Your task to perform on an android device: Search for pizza restaurants on Maps Image 0: 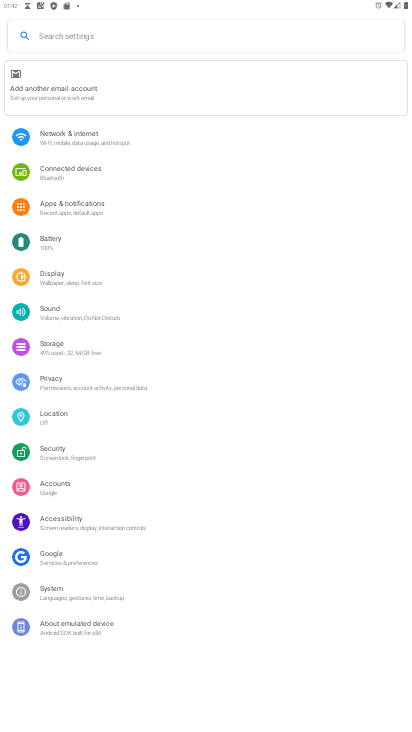
Step 0: press home button
Your task to perform on an android device: Search for pizza restaurants on Maps Image 1: 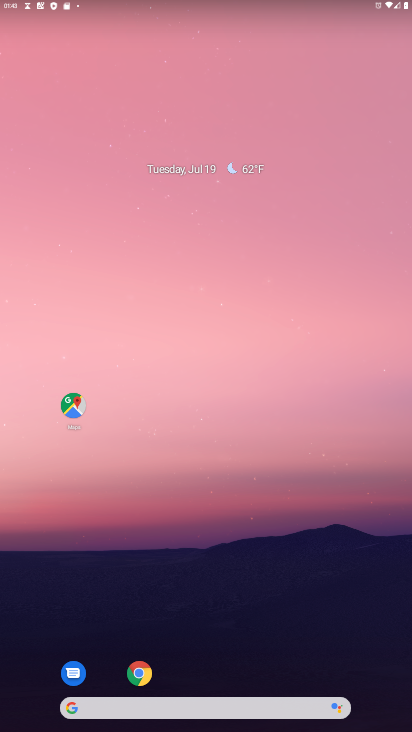
Step 1: click (79, 403)
Your task to perform on an android device: Search for pizza restaurants on Maps Image 2: 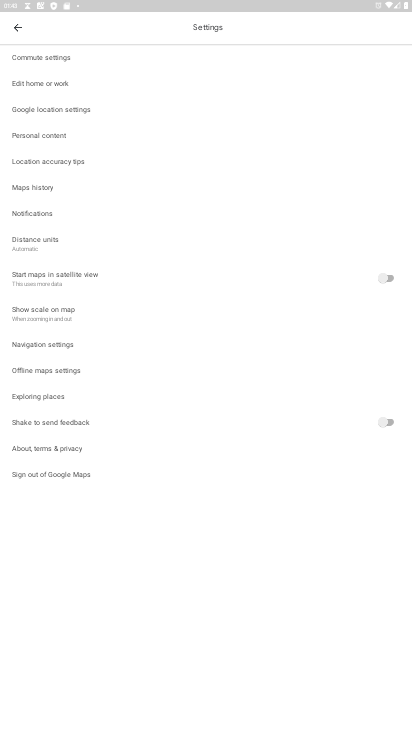
Step 2: click (15, 17)
Your task to perform on an android device: Search for pizza restaurants on Maps Image 3: 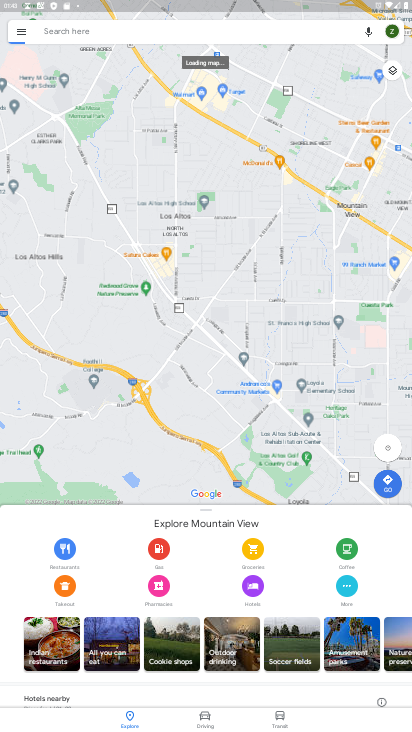
Step 3: click (187, 26)
Your task to perform on an android device: Search for pizza restaurants on Maps Image 4: 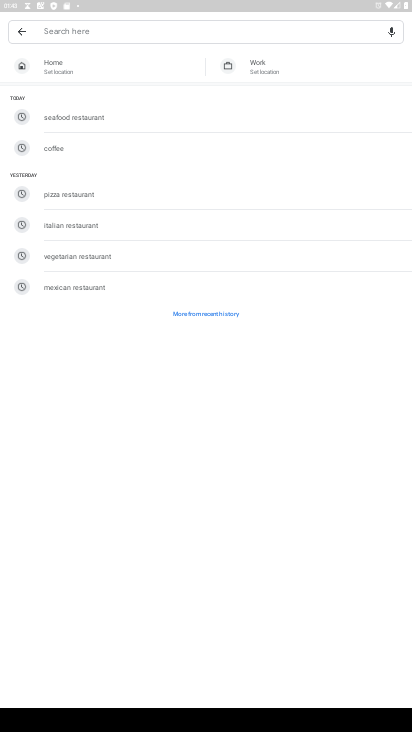
Step 4: click (90, 198)
Your task to perform on an android device: Search for pizza restaurants on Maps Image 5: 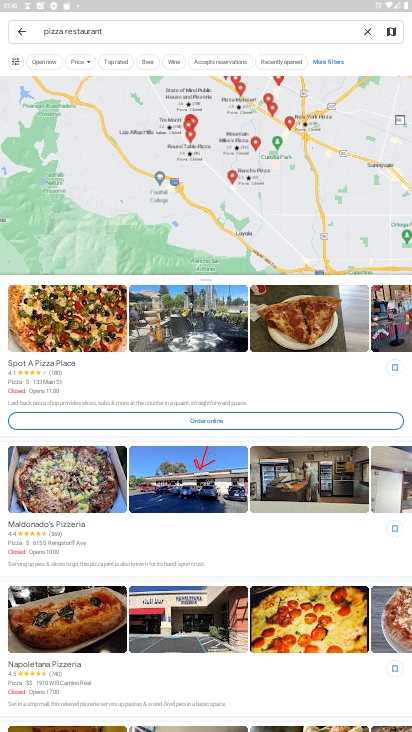
Step 5: task complete